Your task to perform on an android device: turn off data saver in the chrome app Image 0: 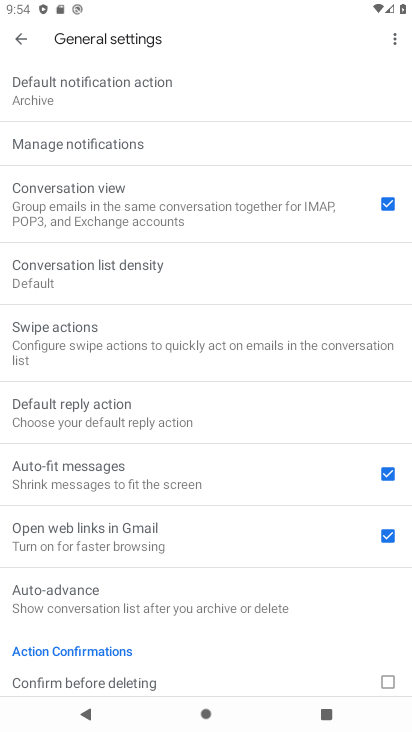
Step 0: press home button
Your task to perform on an android device: turn off data saver in the chrome app Image 1: 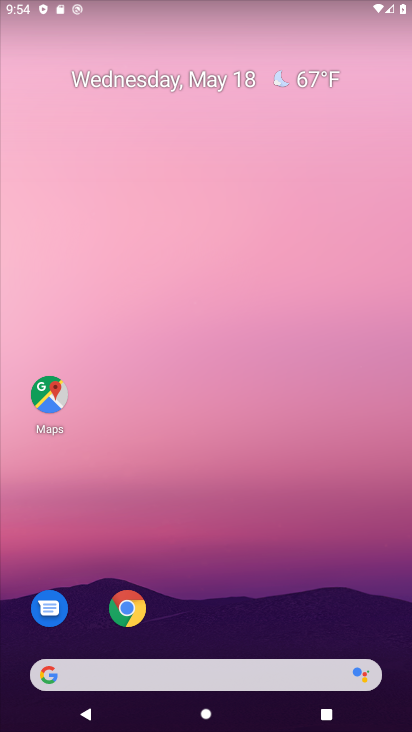
Step 1: click (123, 603)
Your task to perform on an android device: turn off data saver in the chrome app Image 2: 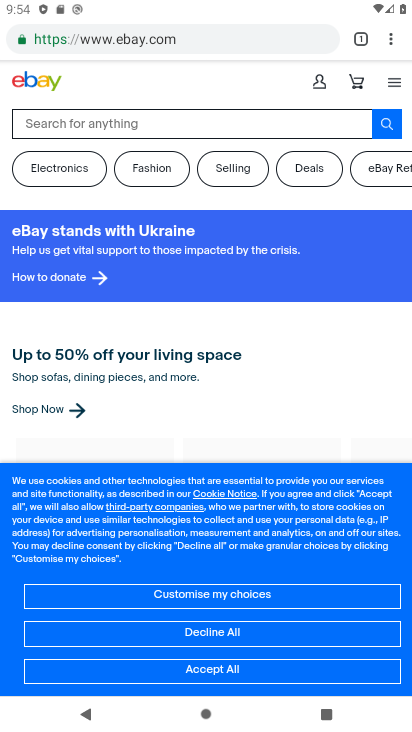
Step 2: click (393, 42)
Your task to perform on an android device: turn off data saver in the chrome app Image 3: 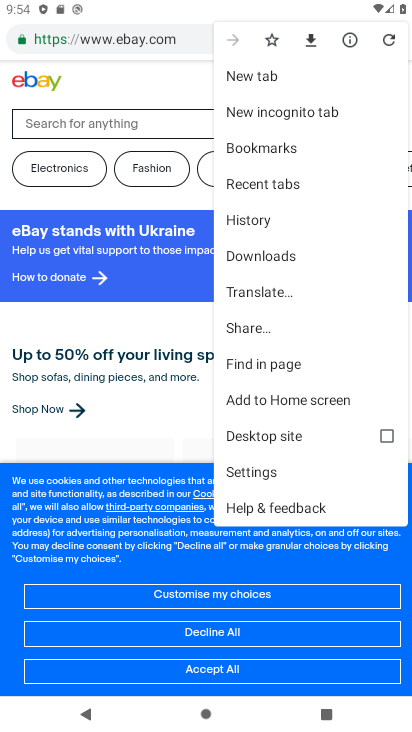
Step 3: click (267, 474)
Your task to perform on an android device: turn off data saver in the chrome app Image 4: 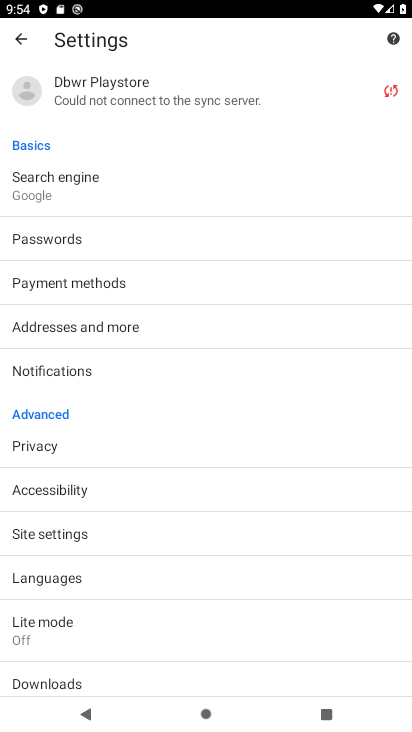
Step 4: click (57, 635)
Your task to perform on an android device: turn off data saver in the chrome app Image 5: 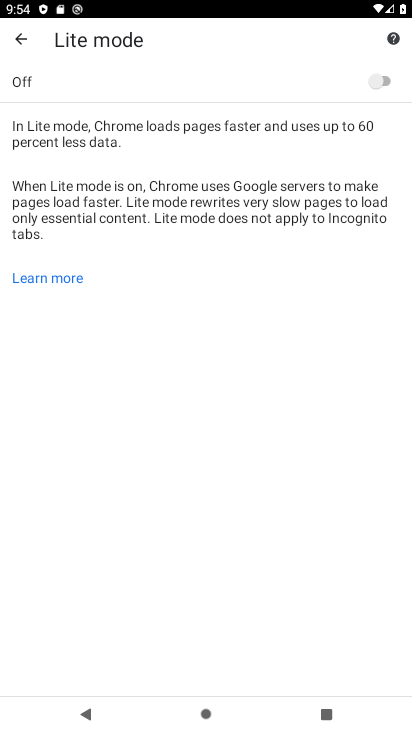
Step 5: task complete